Your task to perform on an android device: What is the recent news? Image 0: 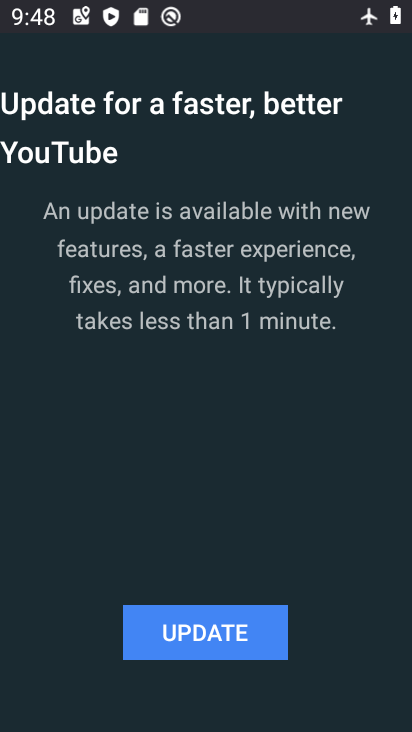
Step 0: press home button
Your task to perform on an android device: What is the recent news? Image 1: 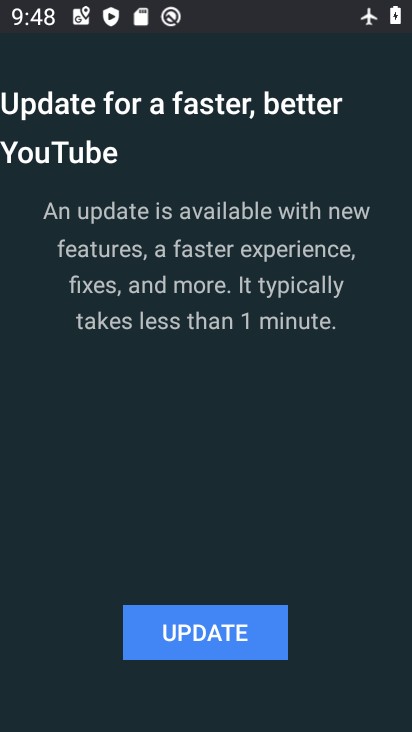
Step 1: press home button
Your task to perform on an android device: What is the recent news? Image 2: 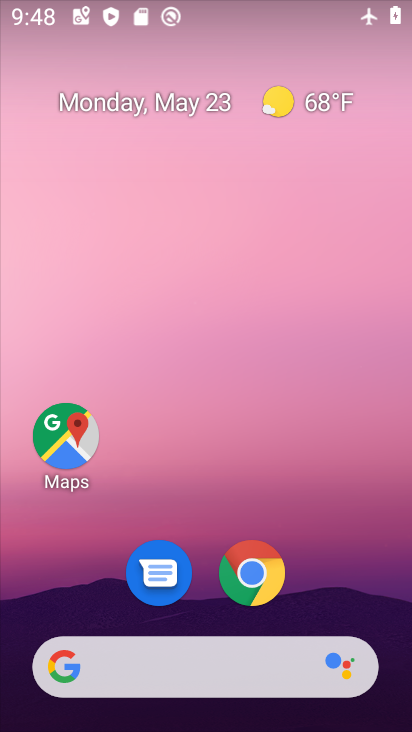
Step 2: drag from (210, 696) to (269, 183)
Your task to perform on an android device: What is the recent news? Image 3: 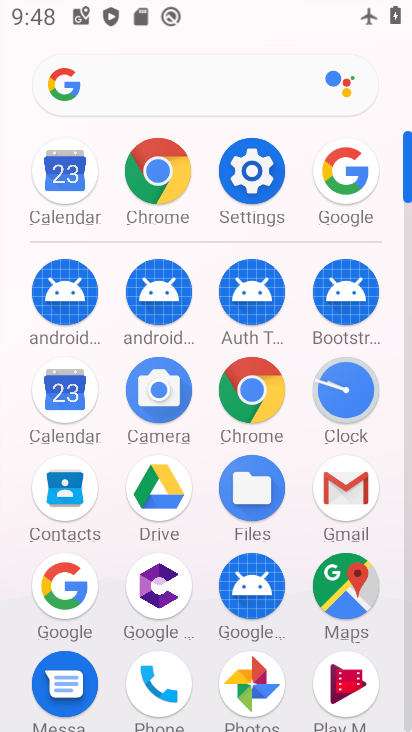
Step 3: click (77, 589)
Your task to perform on an android device: What is the recent news? Image 4: 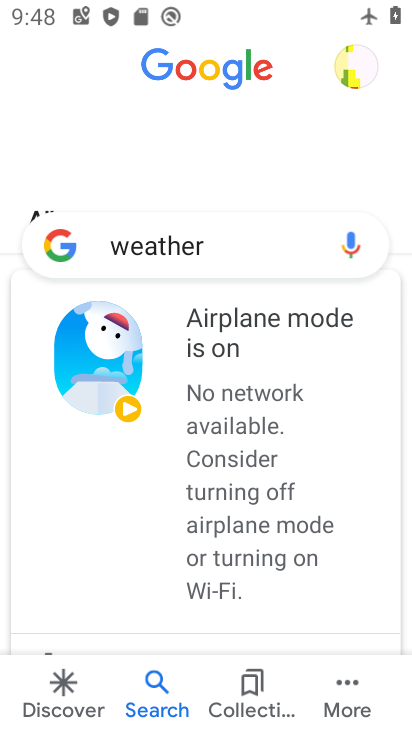
Step 4: click (256, 253)
Your task to perform on an android device: What is the recent news? Image 5: 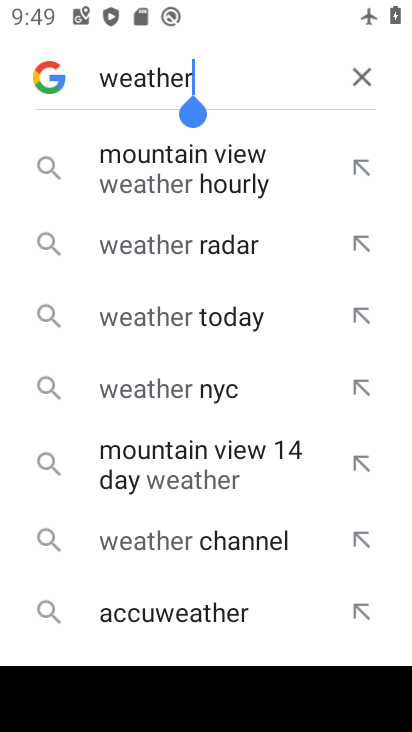
Step 5: click (366, 68)
Your task to perform on an android device: What is the recent news? Image 6: 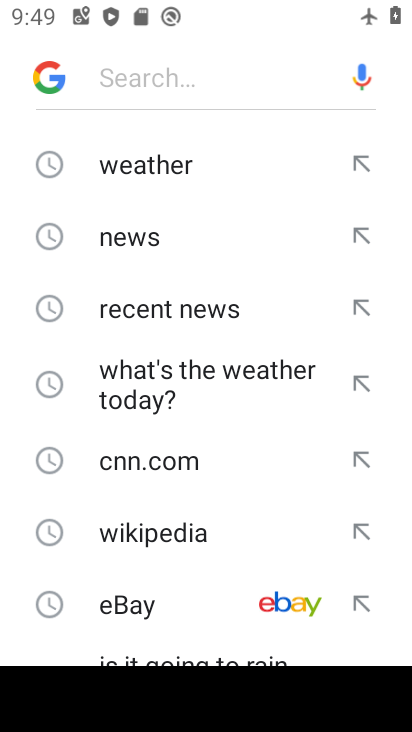
Step 6: click (204, 221)
Your task to perform on an android device: What is the recent news? Image 7: 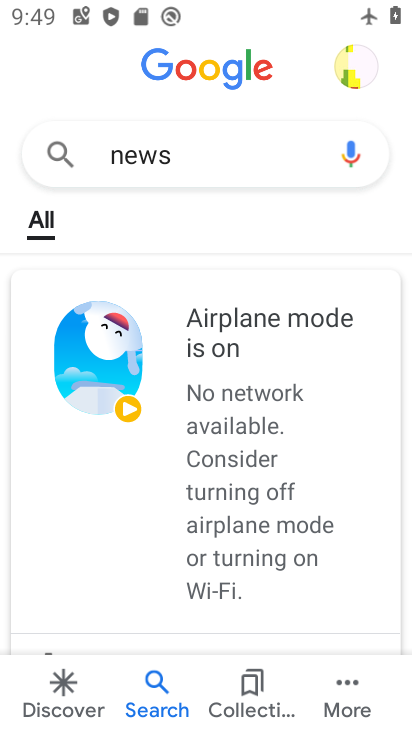
Step 7: task complete